Your task to perform on an android device: How much does a 2 bedroom apartment rent for in Austin? Image 0: 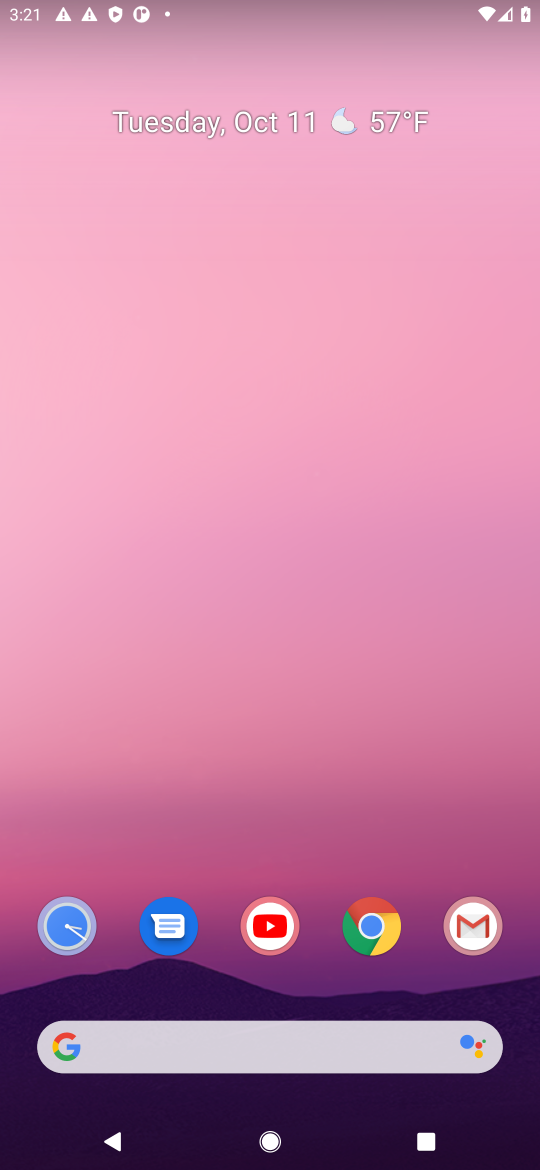
Step 0: click (205, 1038)
Your task to perform on an android device: How much does a 2 bedroom apartment rent for in Austin? Image 1: 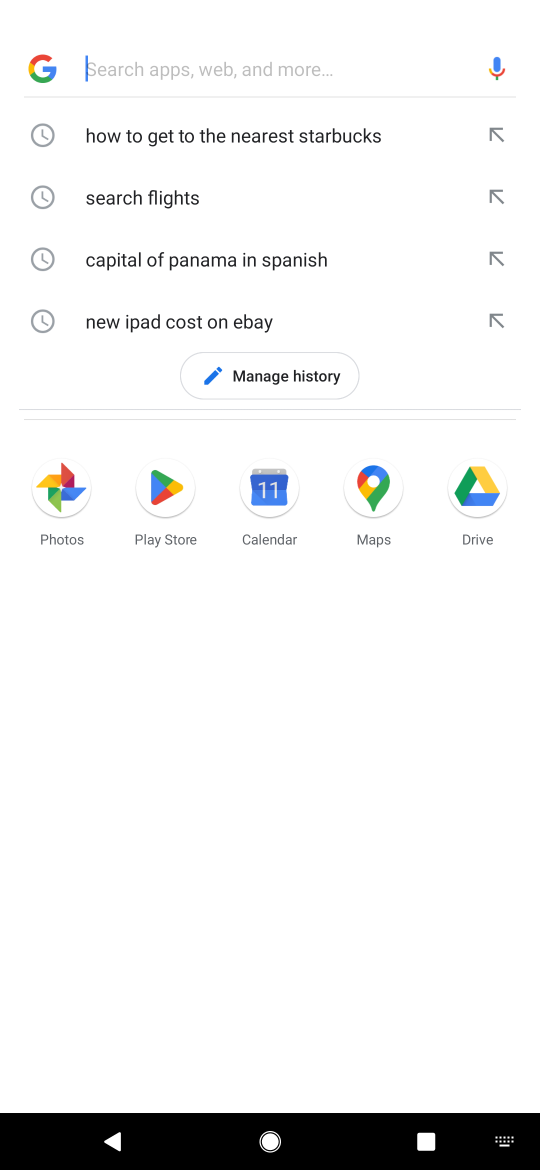
Step 1: type "2 bedroom apartment rent for in Austin"
Your task to perform on an android device: How much does a 2 bedroom apartment rent for in Austin? Image 2: 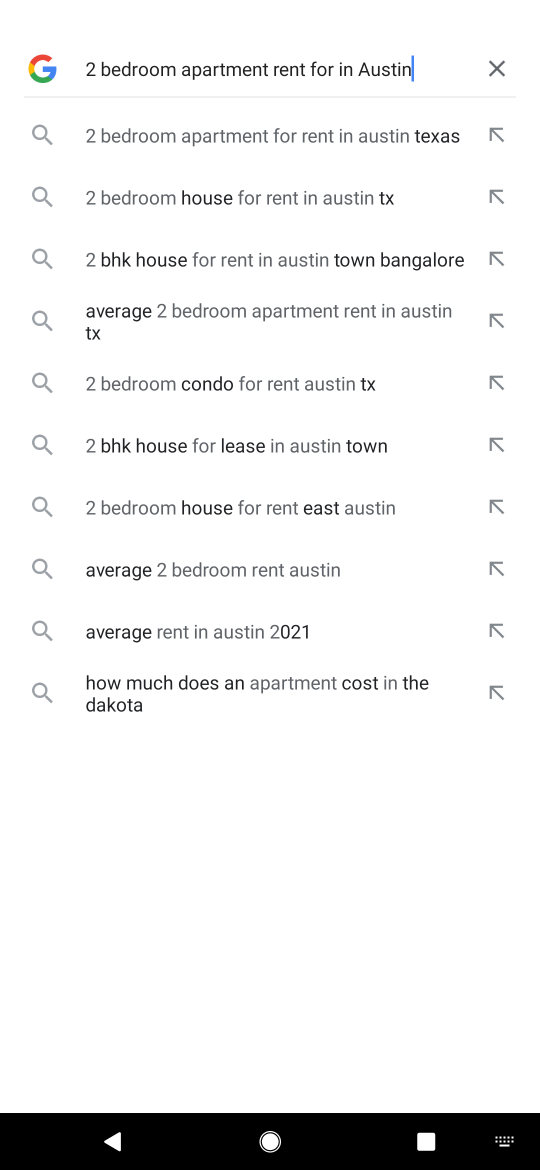
Step 2: click (265, 141)
Your task to perform on an android device: How much does a 2 bedroom apartment rent for in Austin? Image 3: 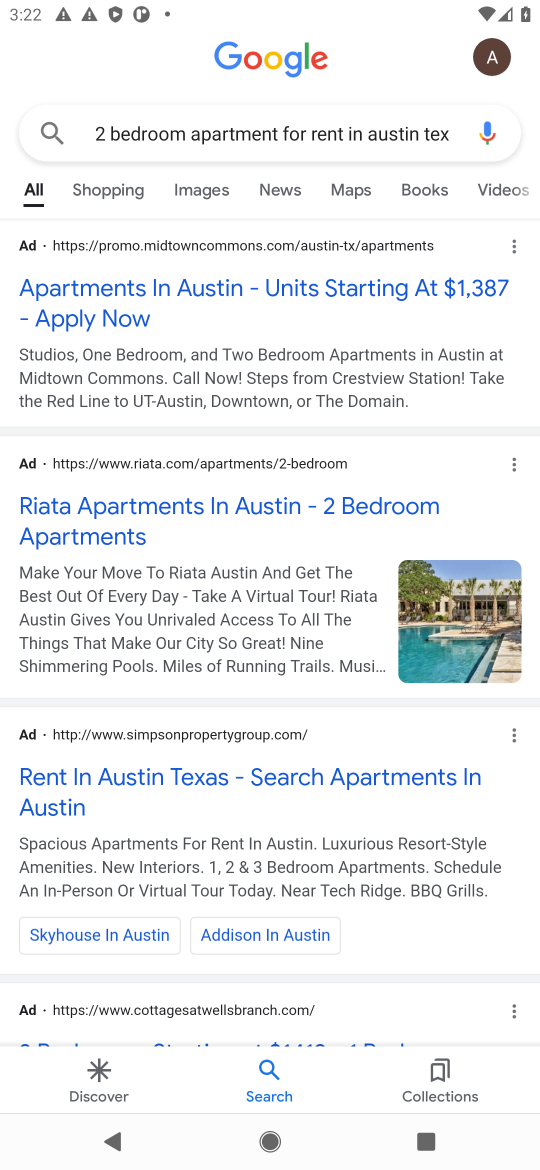
Step 3: drag from (207, 960) to (254, 273)
Your task to perform on an android device: How much does a 2 bedroom apartment rent for in Austin? Image 4: 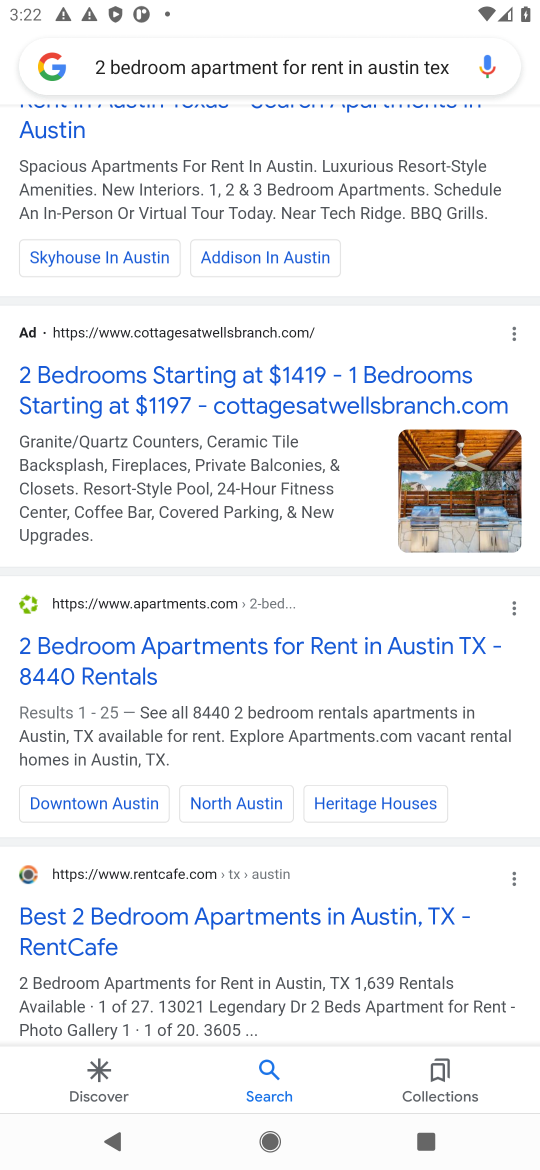
Step 4: click (126, 672)
Your task to perform on an android device: How much does a 2 bedroom apartment rent for in Austin? Image 5: 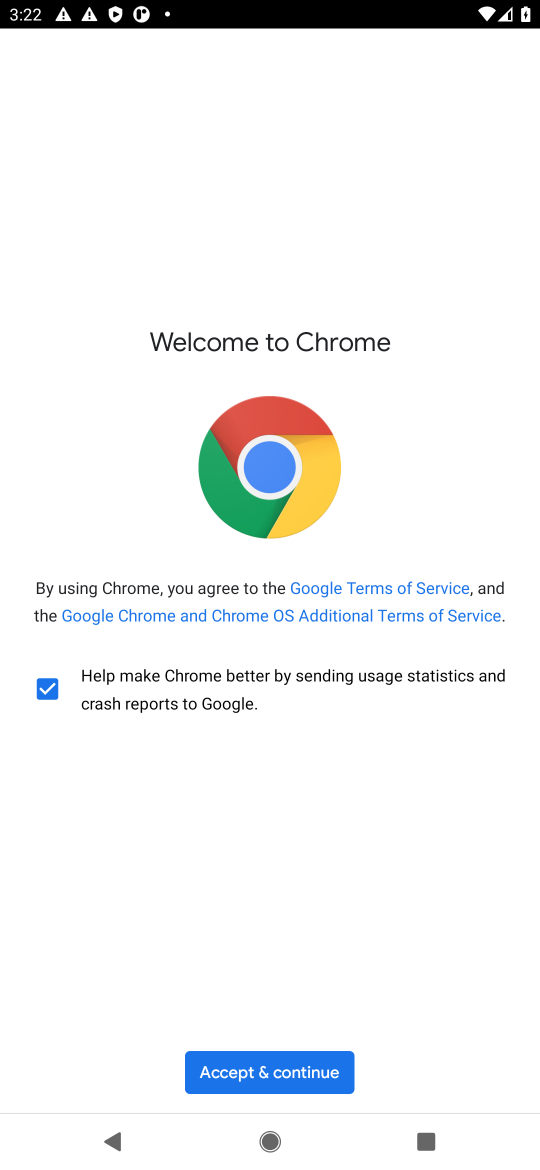
Step 5: click (275, 1082)
Your task to perform on an android device: How much does a 2 bedroom apartment rent for in Austin? Image 6: 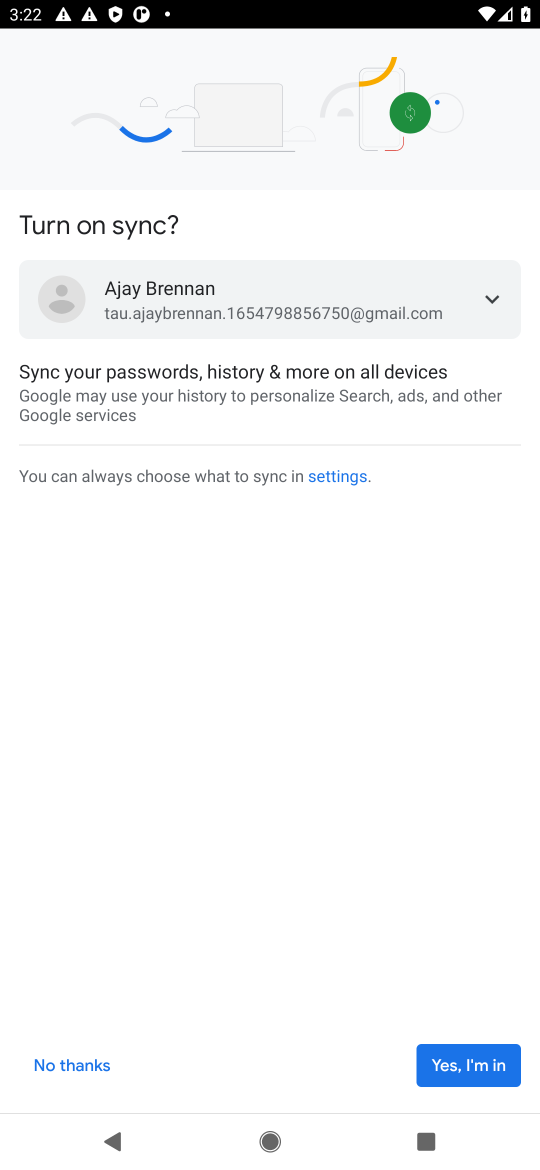
Step 6: click (476, 1070)
Your task to perform on an android device: How much does a 2 bedroom apartment rent for in Austin? Image 7: 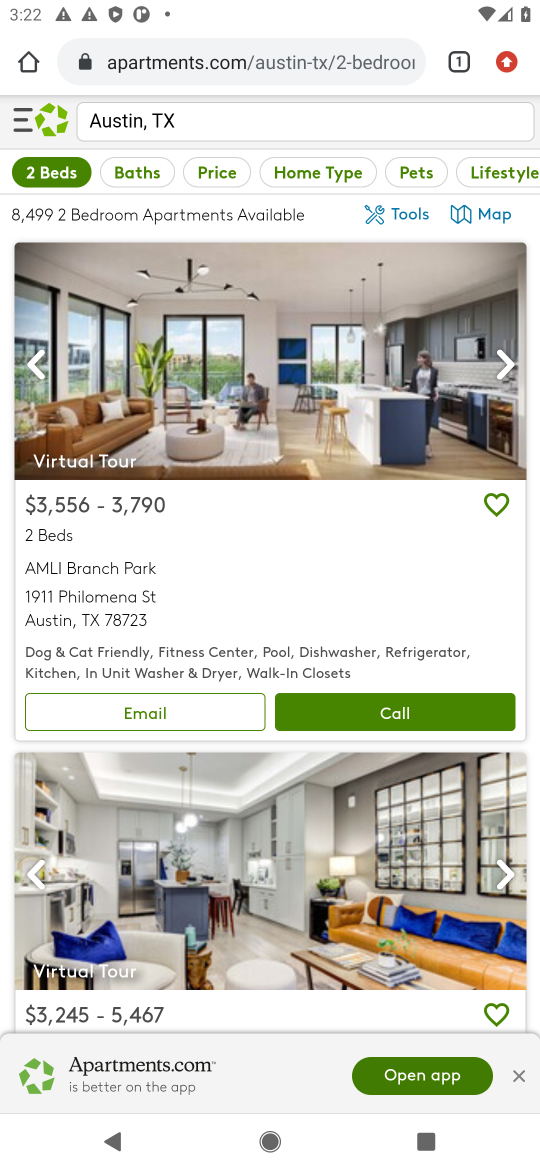
Step 7: task complete